Your task to perform on an android device: Open the calendar and show me this week's events? Image 0: 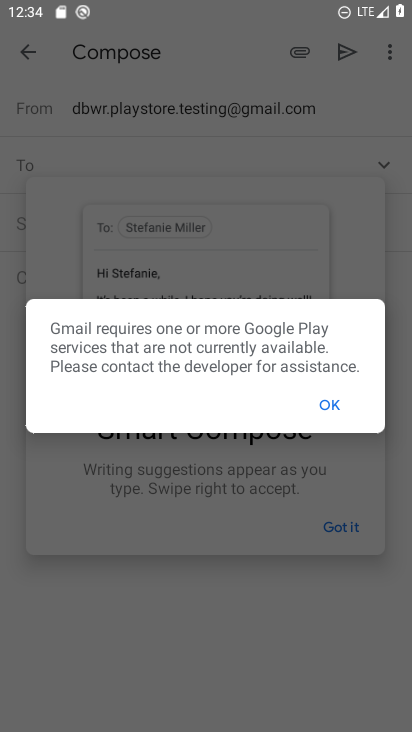
Step 0: press home button
Your task to perform on an android device: Open the calendar and show me this week's events? Image 1: 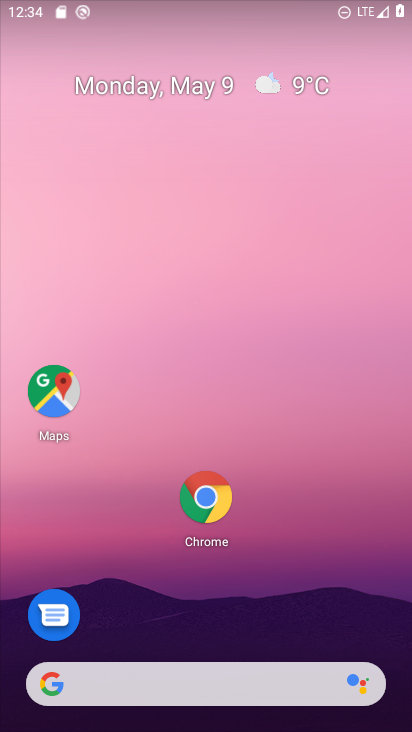
Step 1: drag from (326, 617) to (222, 83)
Your task to perform on an android device: Open the calendar and show me this week's events? Image 2: 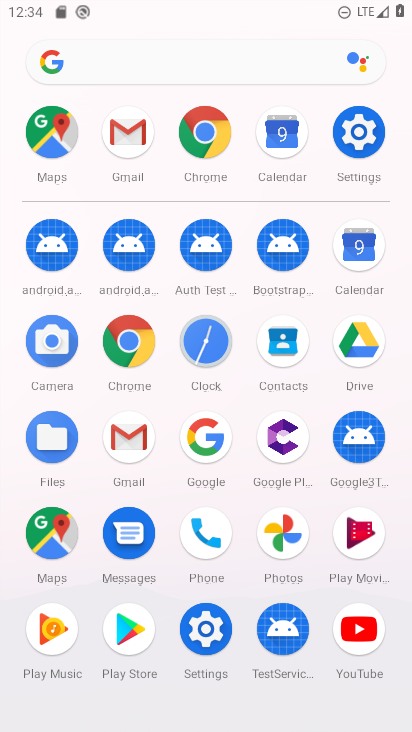
Step 2: click (360, 249)
Your task to perform on an android device: Open the calendar and show me this week's events? Image 3: 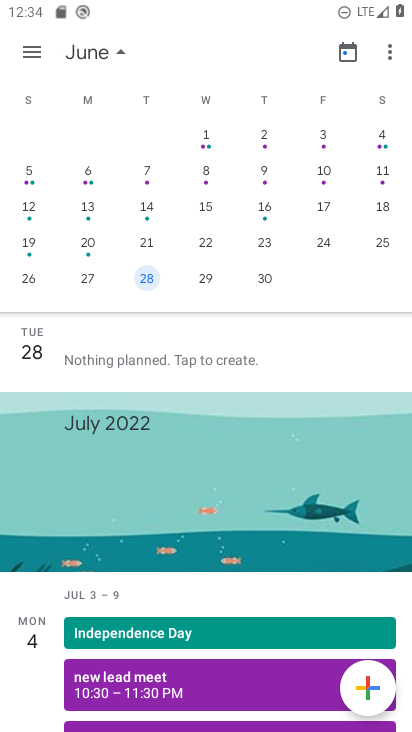
Step 3: drag from (71, 237) to (361, 228)
Your task to perform on an android device: Open the calendar and show me this week's events? Image 4: 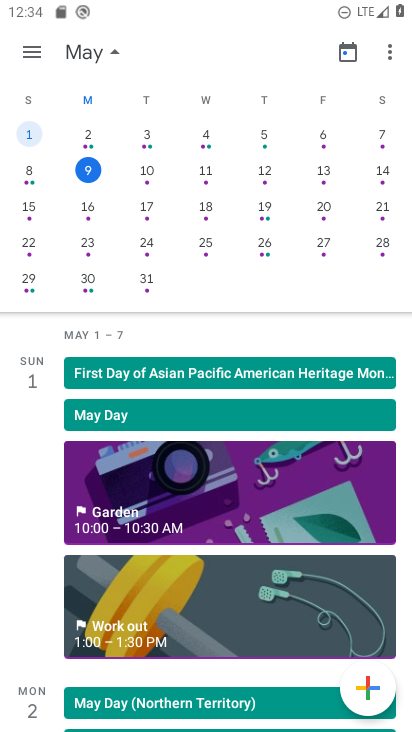
Step 4: click (27, 55)
Your task to perform on an android device: Open the calendar and show me this week's events? Image 5: 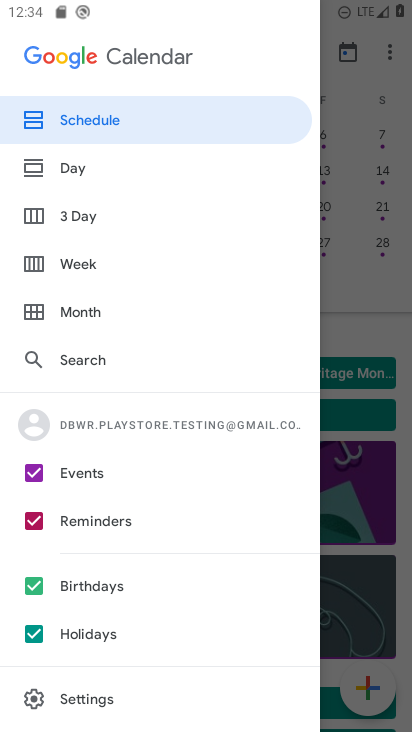
Step 5: click (97, 260)
Your task to perform on an android device: Open the calendar and show me this week's events? Image 6: 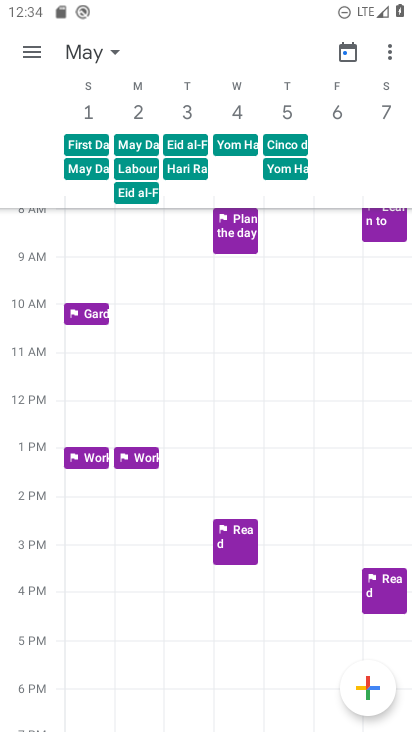
Step 6: task complete